Your task to perform on an android device: allow cookies in the chrome app Image 0: 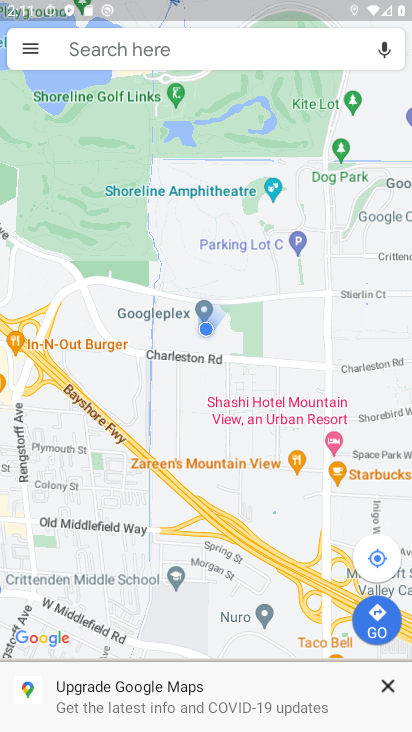
Step 0: press home button
Your task to perform on an android device: allow cookies in the chrome app Image 1: 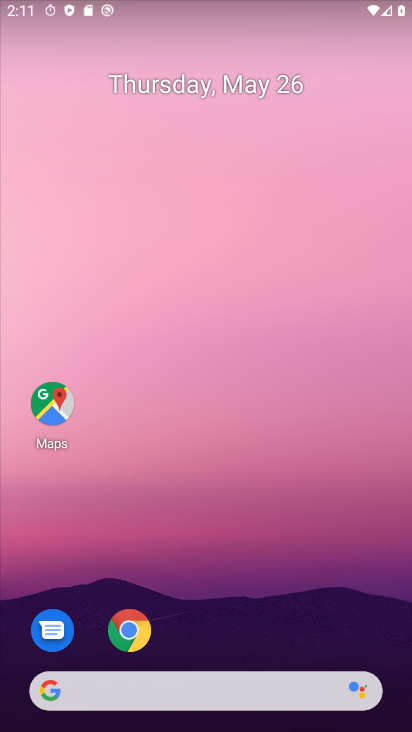
Step 1: click (124, 640)
Your task to perform on an android device: allow cookies in the chrome app Image 2: 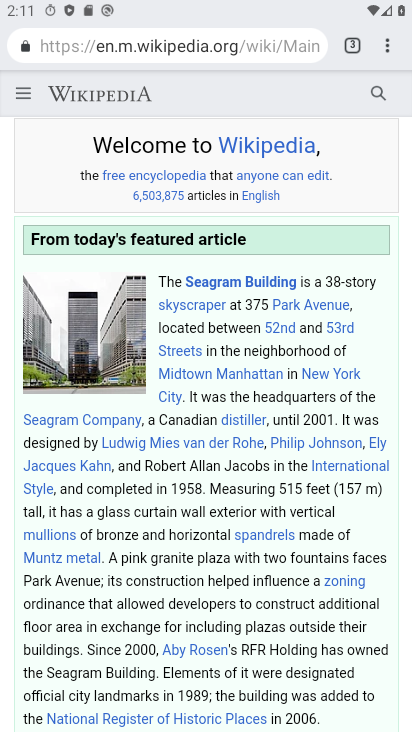
Step 2: click (391, 39)
Your task to perform on an android device: allow cookies in the chrome app Image 3: 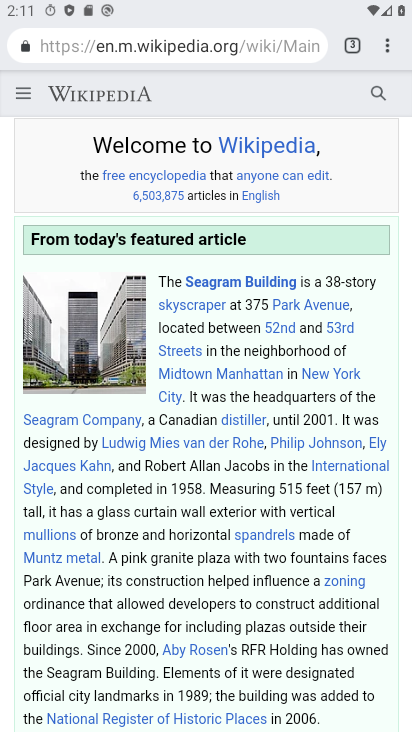
Step 3: click (400, 47)
Your task to perform on an android device: allow cookies in the chrome app Image 4: 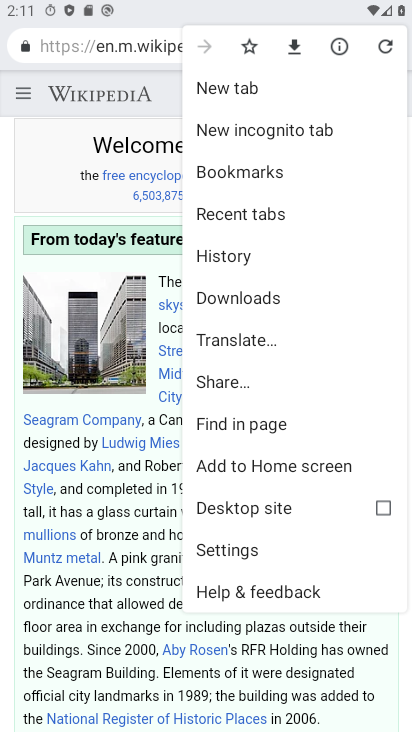
Step 4: click (198, 536)
Your task to perform on an android device: allow cookies in the chrome app Image 5: 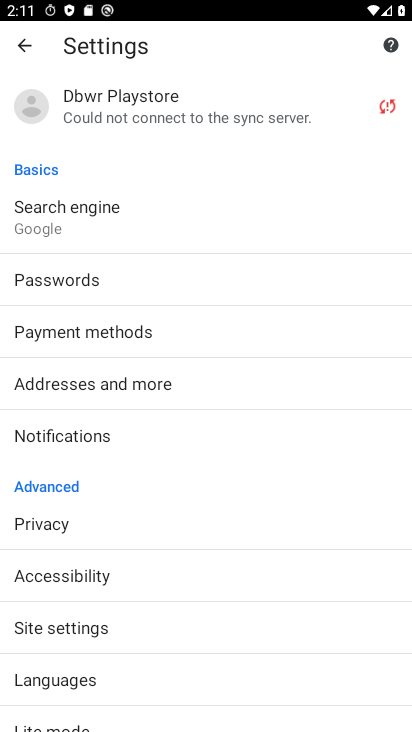
Step 5: click (119, 621)
Your task to perform on an android device: allow cookies in the chrome app Image 6: 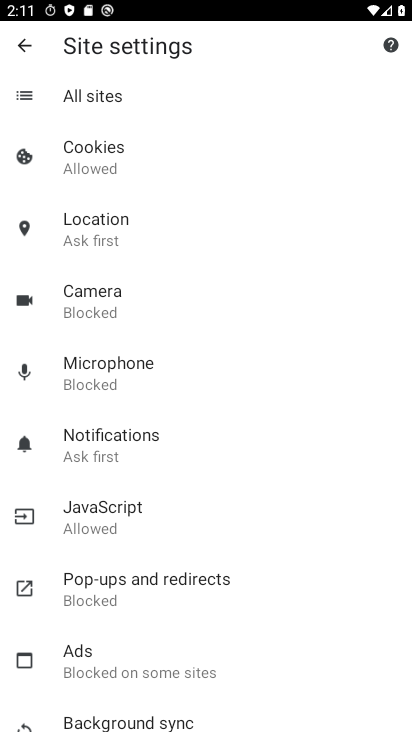
Step 6: click (97, 179)
Your task to perform on an android device: allow cookies in the chrome app Image 7: 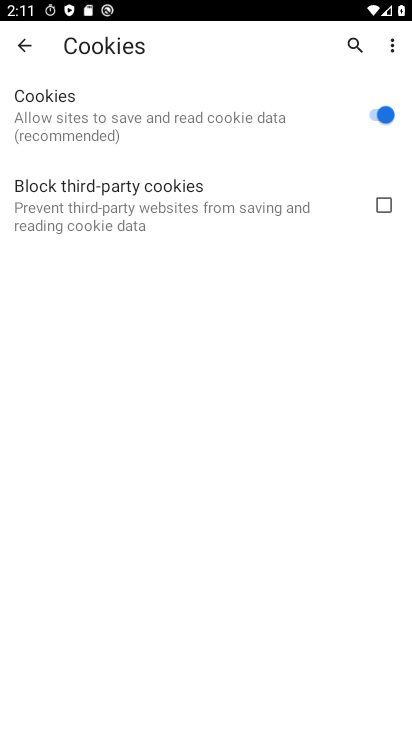
Step 7: task complete